Your task to perform on an android device: turn on airplane mode Image 0: 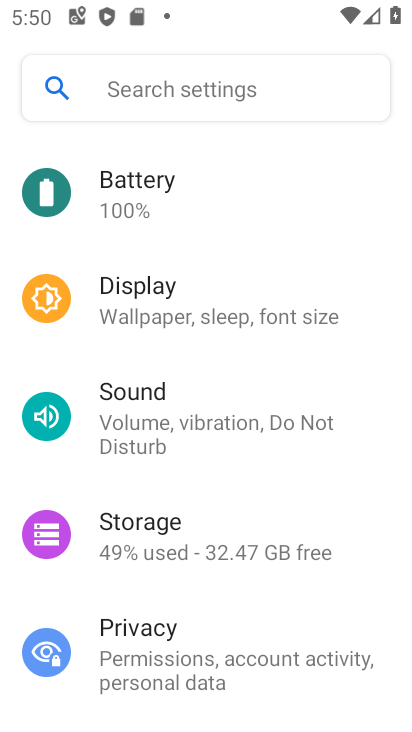
Step 0: press home button
Your task to perform on an android device: turn on airplane mode Image 1: 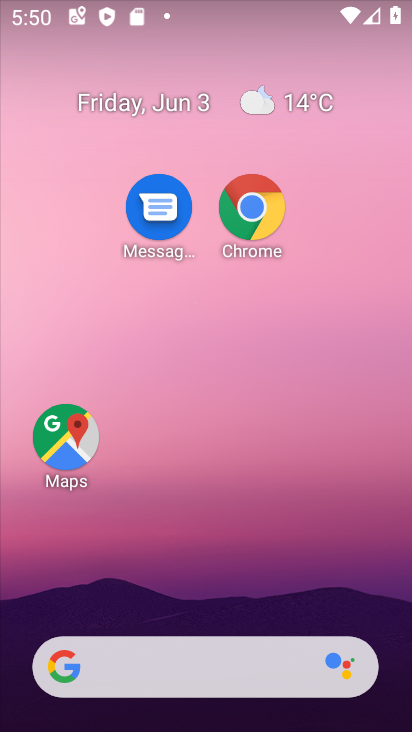
Step 1: drag from (191, 419) to (217, 158)
Your task to perform on an android device: turn on airplane mode Image 2: 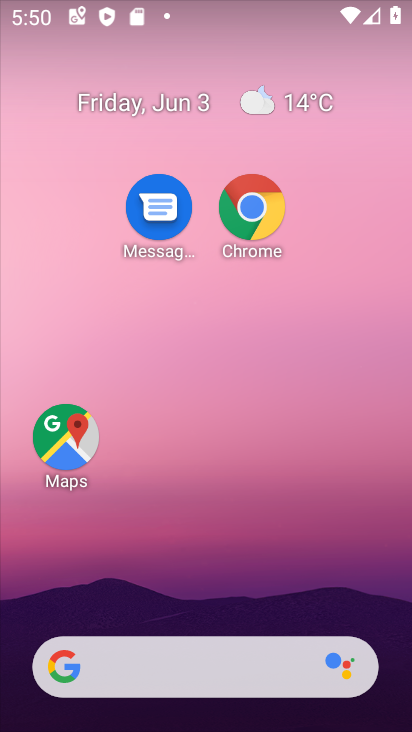
Step 2: drag from (226, 429) to (229, 283)
Your task to perform on an android device: turn on airplane mode Image 3: 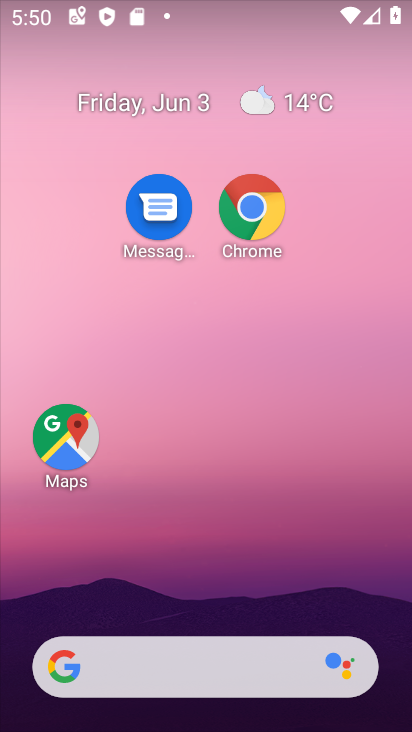
Step 3: drag from (223, 521) to (225, 171)
Your task to perform on an android device: turn on airplane mode Image 4: 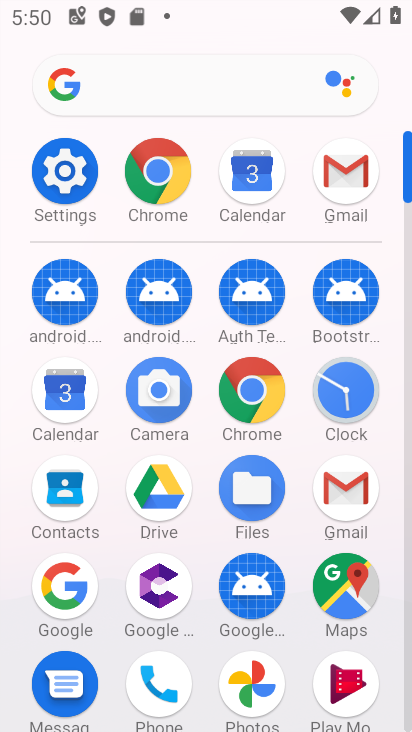
Step 4: click (89, 177)
Your task to perform on an android device: turn on airplane mode Image 5: 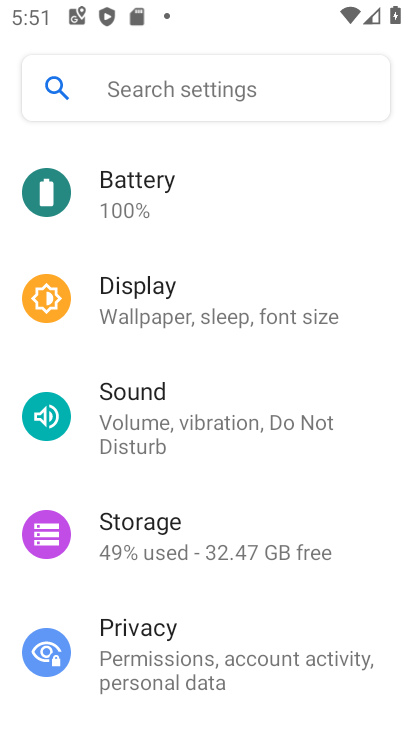
Step 5: drag from (171, 504) to (184, 400)
Your task to perform on an android device: turn on airplane mode Image 6: 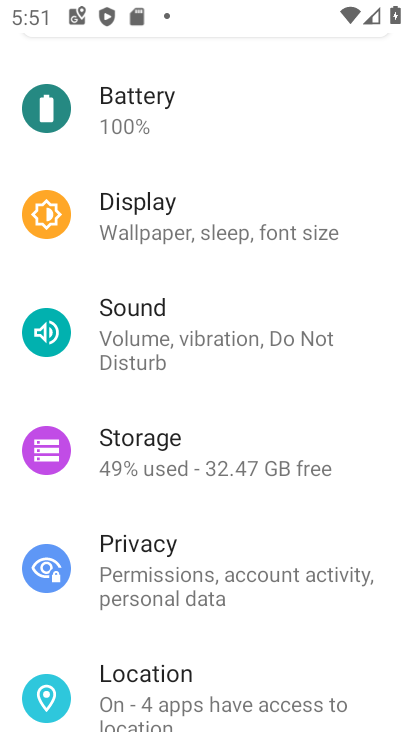
Step 6: drag from (213, 315) to (234, 500)
Your task to perform on an android device: turn on airplane mode Image 7: 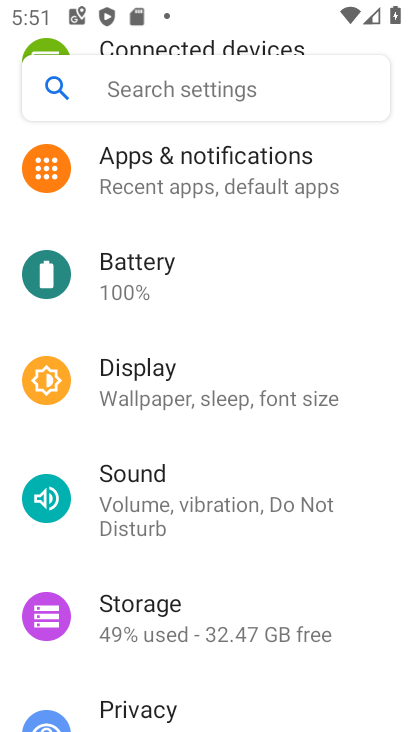
Step 7: drag from (216, 183) to (211, 330)
Your task to perform on an android device: turn on airplane mode Image 8: 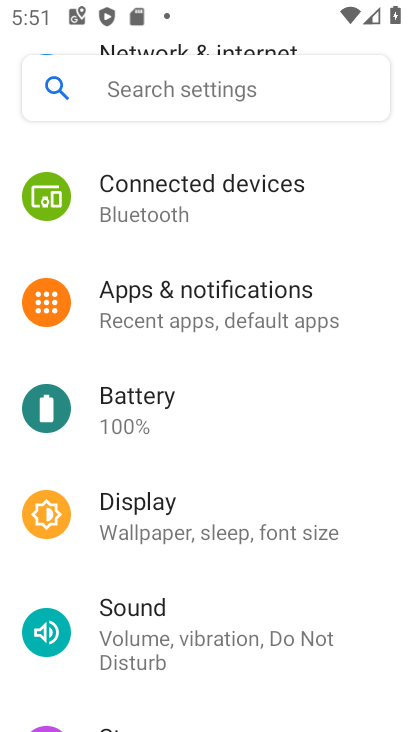
Step 8: drag from (195, 299) to (223, 487)
Your task to perform on an android device: turn on airplane mode Image 9: 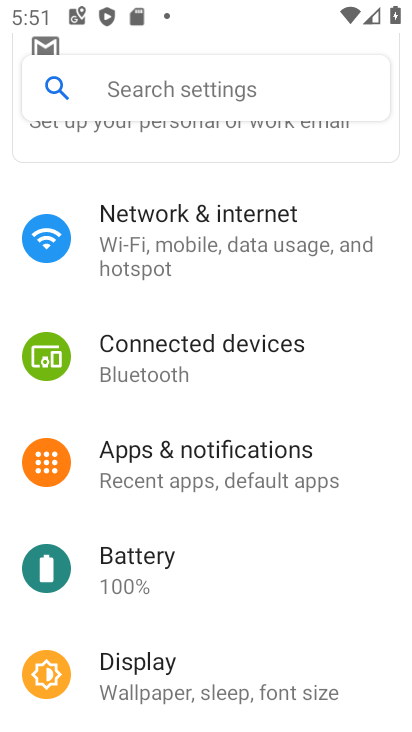
Step 9: click (182, 255)
Your task to perform on an android device: turn on airplane mode Image 10: 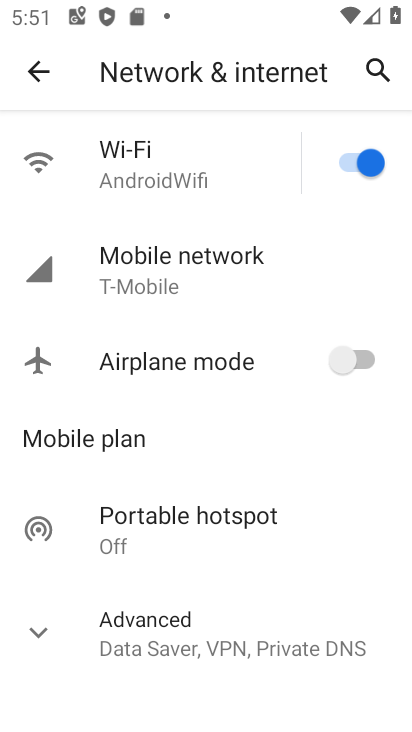
Step 10: task complete